Your task to perform on an android device: Open internet settings Image 0: 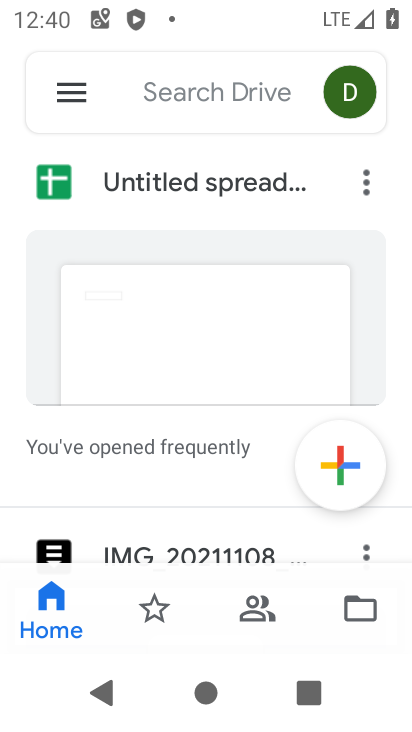
Step 0: press home button
Your task to perform on an android device: Open internet settings Image 1: 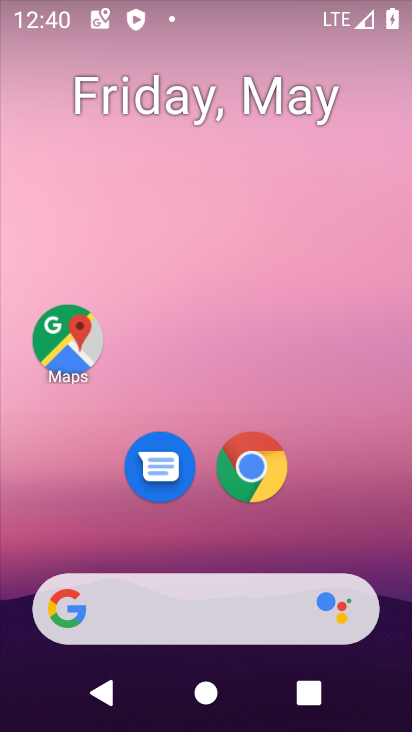
Step 1: drag from (349, 531) to (273, 123)
Your task to perform on an android device: Open internet settings Image 2: 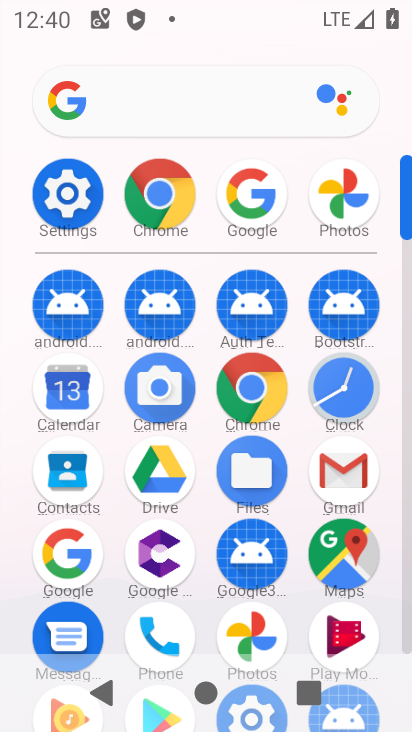
Step 2: click (66, 195)
Your task to perform on an android device: Open internet settings Image 3: 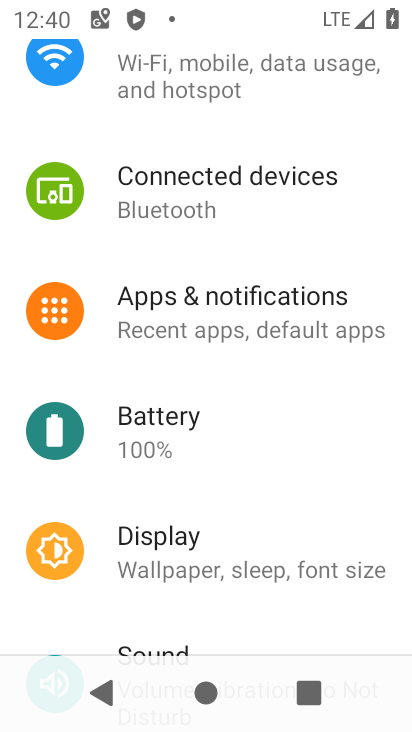
Step 3: drag from (238, 134) to (251, 329)
Your task to perform on an android device: Open internet settings Image 4: 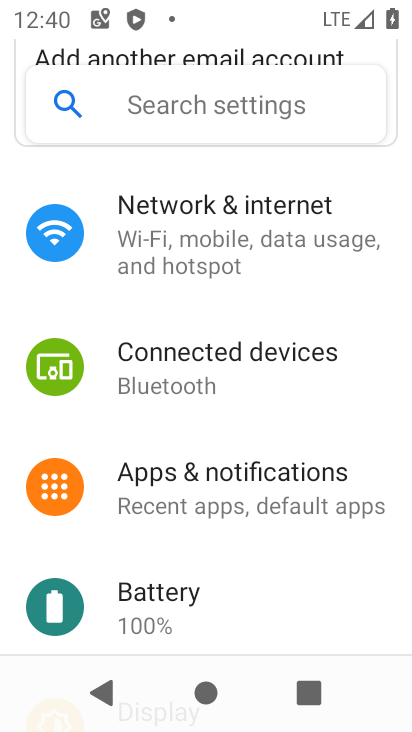
Step 4: click (203, 208)
Your task to perform on an android device: Open internet settings Image 5: 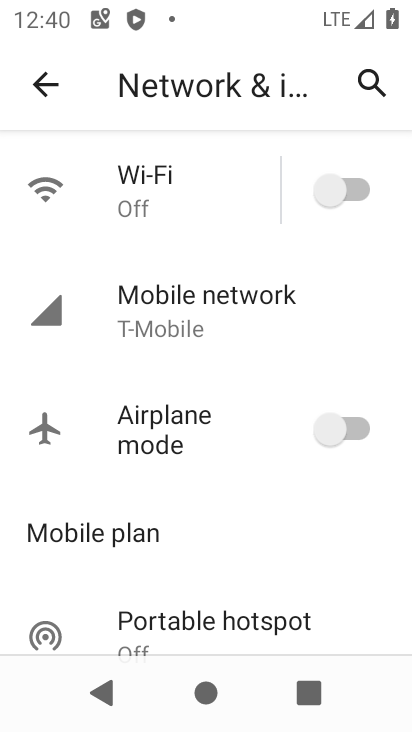
Step 5: task complete